Your task to perform on an android device: open chrome privacy settings Image 0: 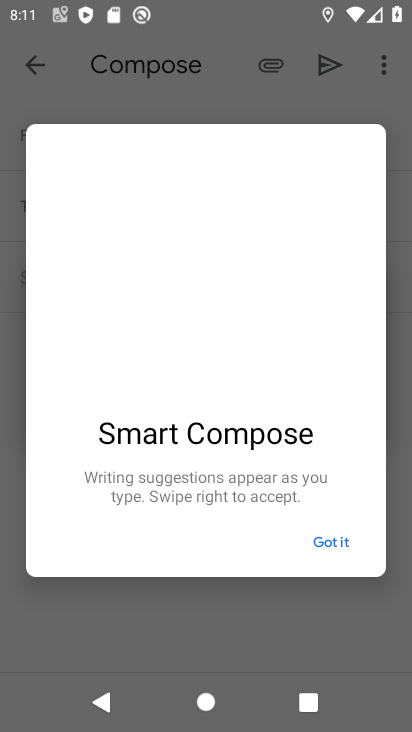
Step 0: press home button
Your task to perform on an android device: open chrome privacy settings Image 1: 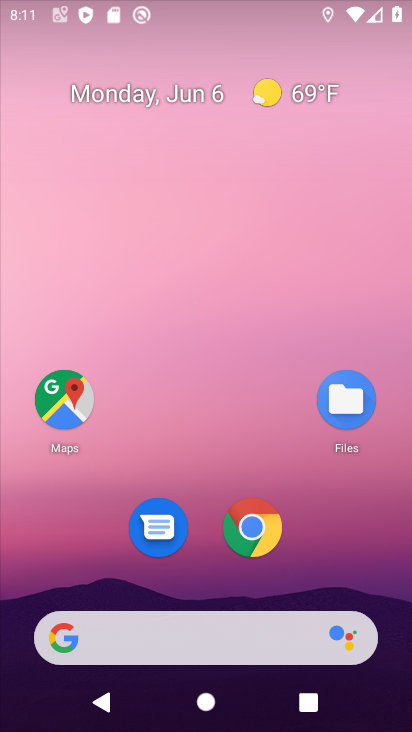
Step 1: drag from (179, 564) to (185, 165)
Your task to perform on an android device: open chrome privacy settings Image 2: 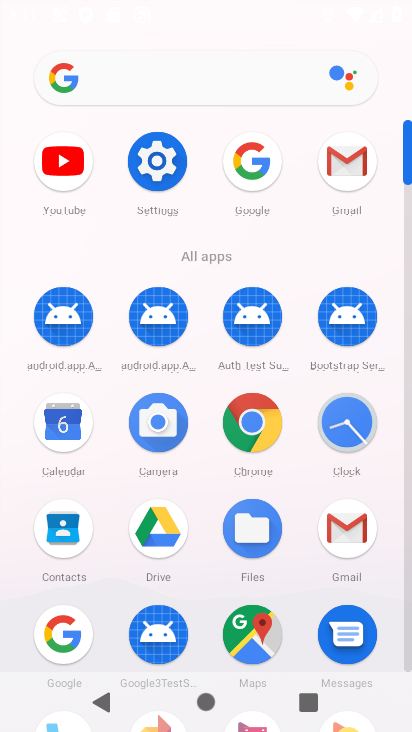
Step 2: click (248, 423)
Your task to perform on an android device: open chrome privacy settings Image 3: 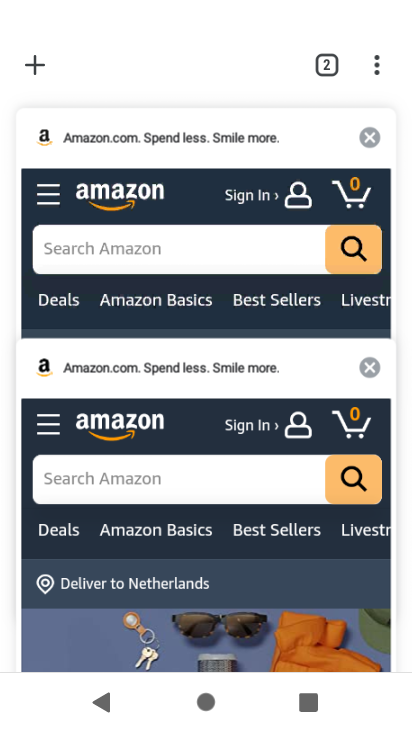
Step 3: press back button
Your task to perform on an android device: open chrome privacy settings Image 4: 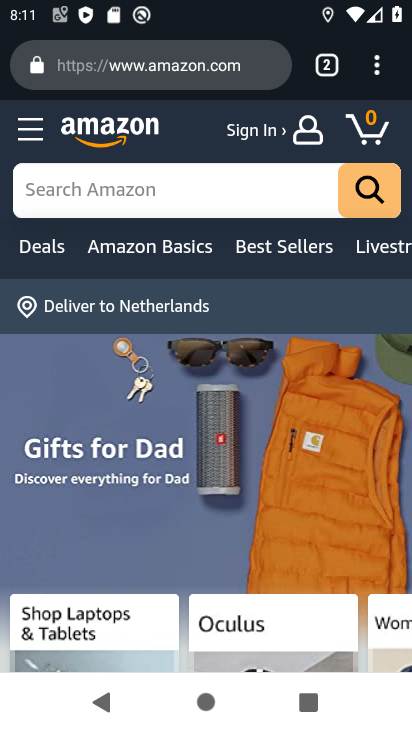
Step 4: click (374, 67)
Your task to perform on an android device: open chrome privacy settings Image 5: 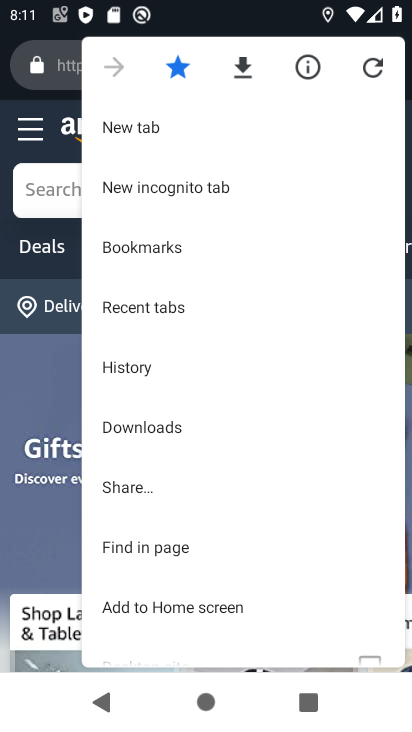
Step 5: drag from (177, 567) to (213, 179)
Your task to perform on an android device: open chrome privacy settings Image 6: 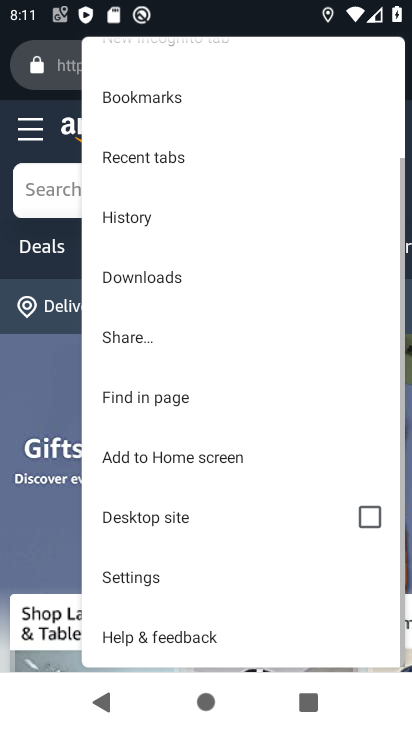
Step 6: click (118, 578)
Your task to perform on an android device: open chrome privacy settings Image 7: 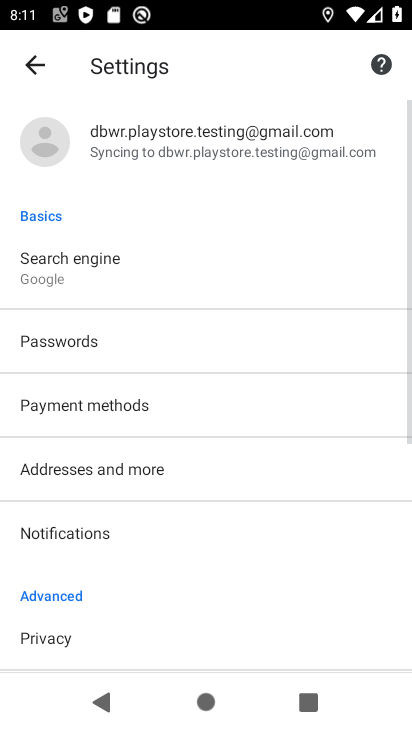
Step 7: drag from (177, 576) to (167, 438)
Your task to perform on an android device: open chrome privacy settings Image 8: 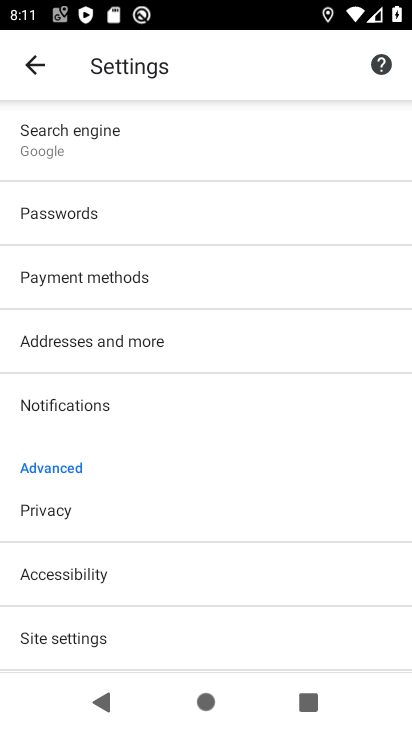
Step 8: click (95, 512)
Your task to perform on an android device: open chrome privacy settings Image 9: 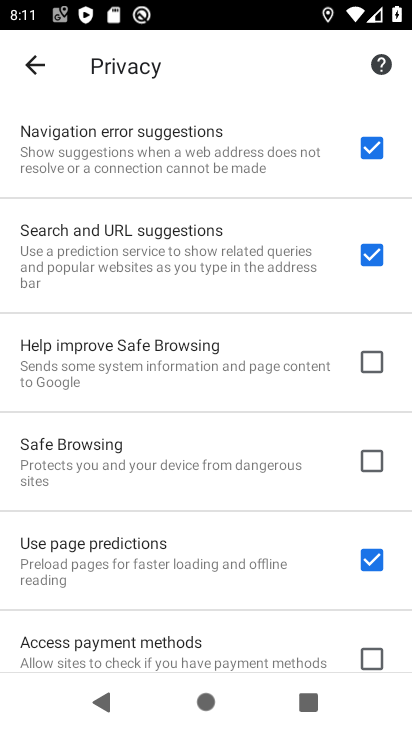
Step 9: task complete